Your task to perform on an android device: make emails show in primary in the gmail app Image 0: 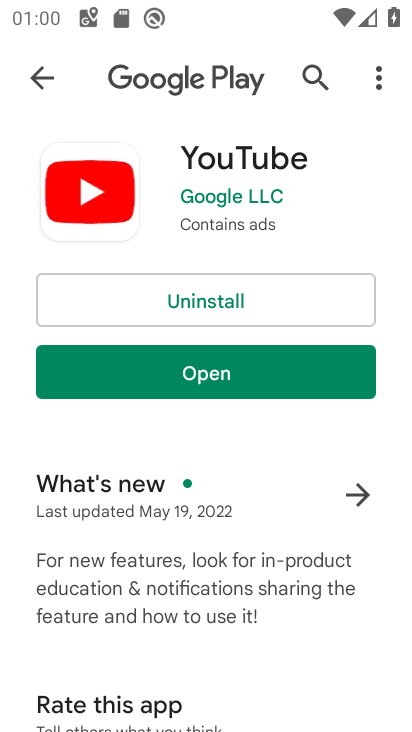
Step 0: press home button
Your task to perform on an android device: make emails show in primary in the gmail app Image 1: 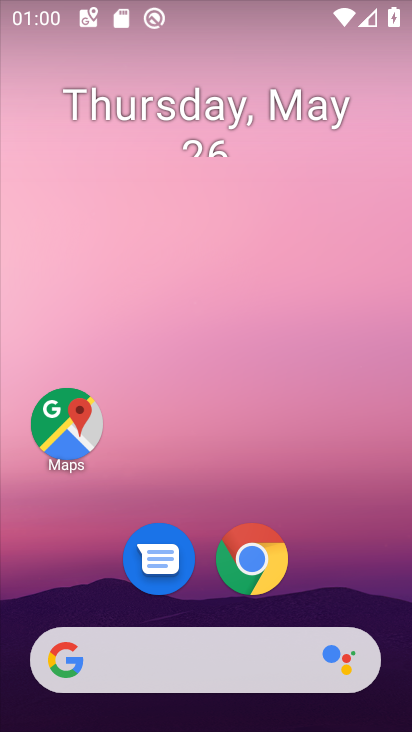
Step 1: drag from (327, 562) to (310, 257)
Your task to perform on an android device: make emails show in primary in the gmail app Image 2: 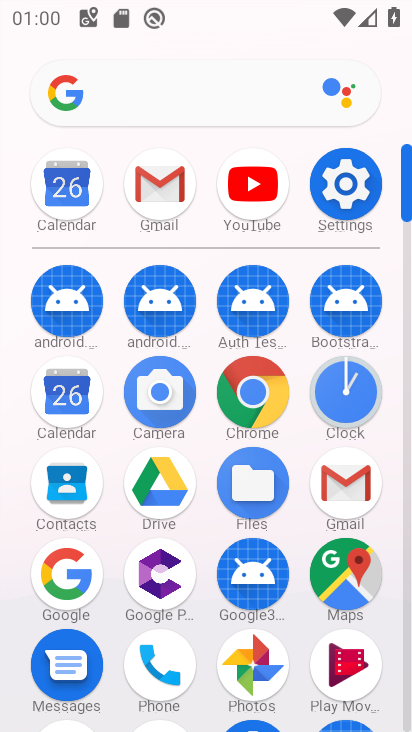
Step 2: click (149, 192)
Your task to perform on an android device: make emails show in primary in the gmail app Image 3: 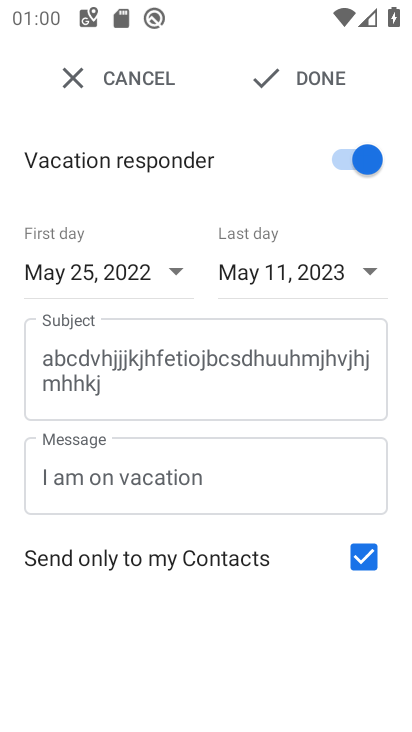
Step 3: click (76, 80)
Your task to perform on an android device: make emails show in primary in the gmail app Image 4: 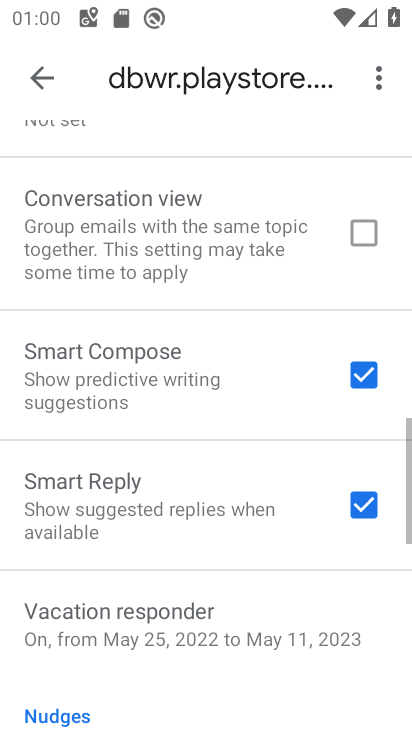
Step 4: click (40, 76)
Your task to perform on an android device: make emails show in primary in the gmail app Image 5: 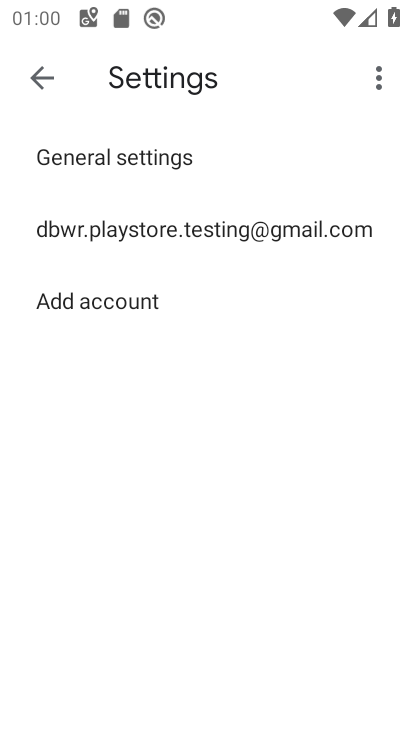
Step 5: click (38, 78)
Your task to perform on an android device: make emails show in primary in the gmail app Image 6: 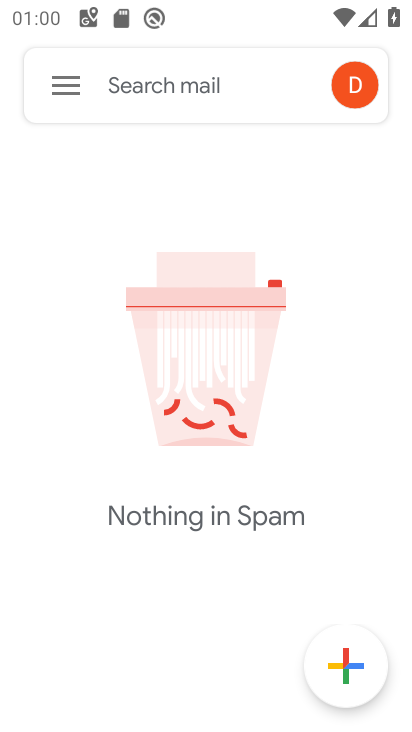
Step 6: click (62, 88)
Your task to perform on an android device: make emails show in primary in the gmail app Image 7: 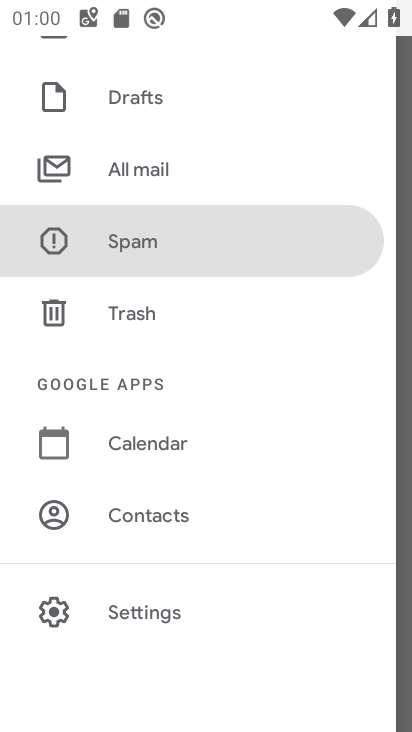
Step 7: click (151, 174)
Your task to perform on an android device: make emails show in primary in the gmail app Image 8: 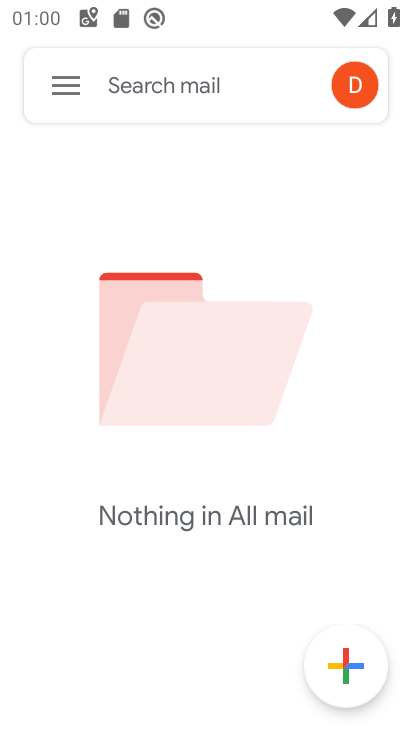
Step 8: task complete